Your task to perform on an android device: check battery use Image 0: 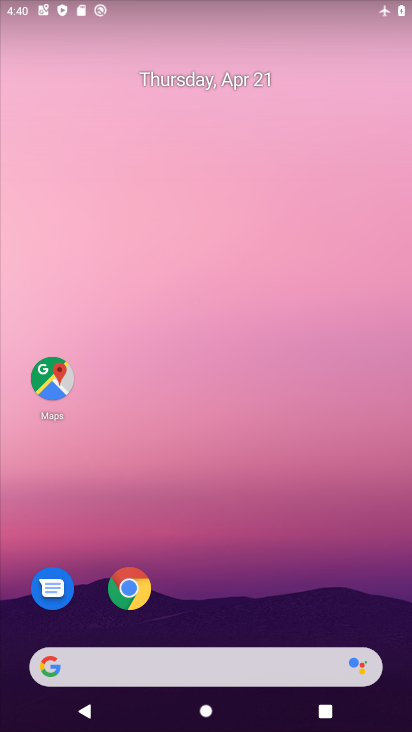
Step 0: drag from (230, 635) to (310, 74)
Your task to perform on an android device: check battery use Image 1: 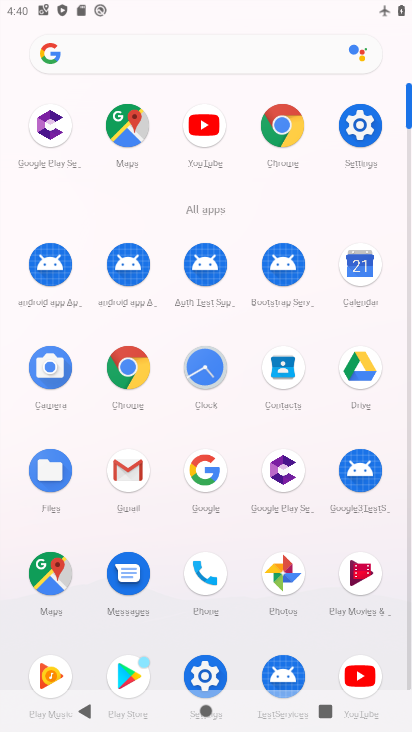
Step 1: click (360, 128)
Your task to perform on an android device: check battery use Image 2: 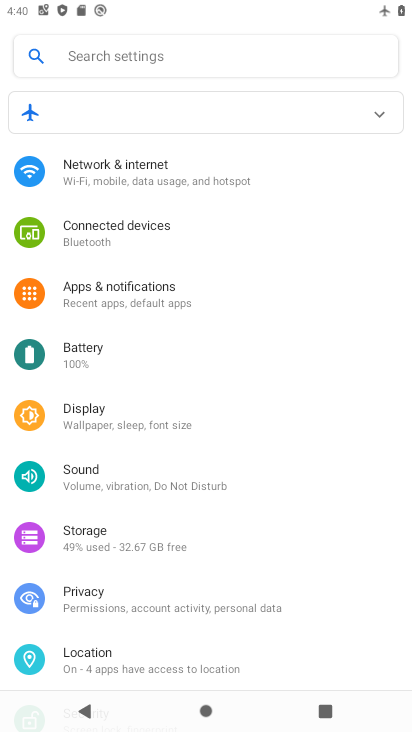
Step 2: click (98, 356)
Your task to perform on an android device: check battery use Image 3: 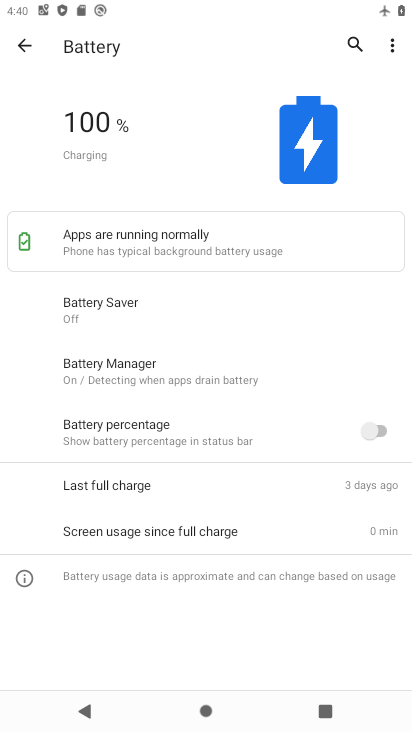
Step 3: click (395, 42)
Your task to perform on an android device: check battery use Image 4: 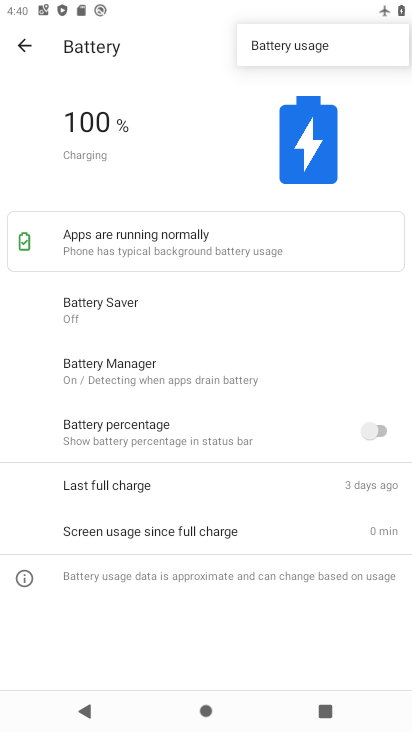
Step 4: click (303, 43)
Your task to perform on an android device: check battery use Image 5: 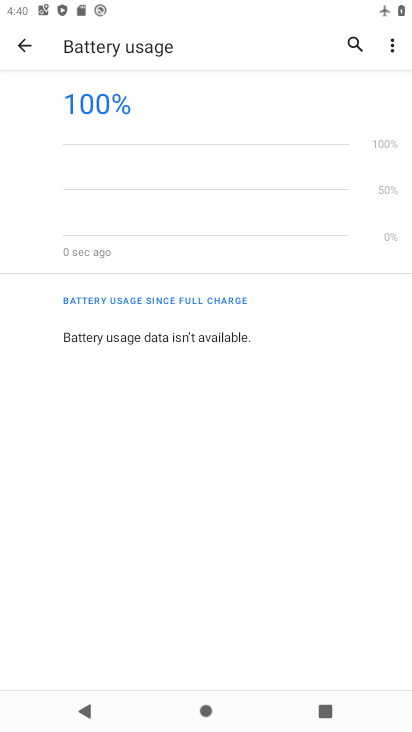
Step 5: task complete